Your task to perform on an android device: Go to settings Image 0: 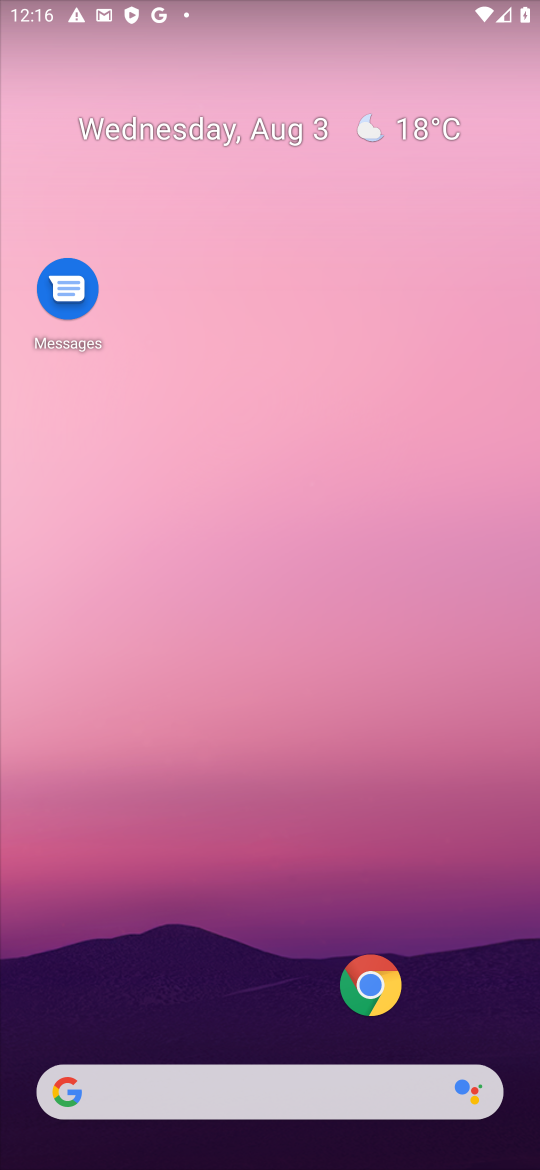
Step 0: drag from (271, 1046) to (253, 312)
Your task to perform on an android device: Go to settings Image 1: 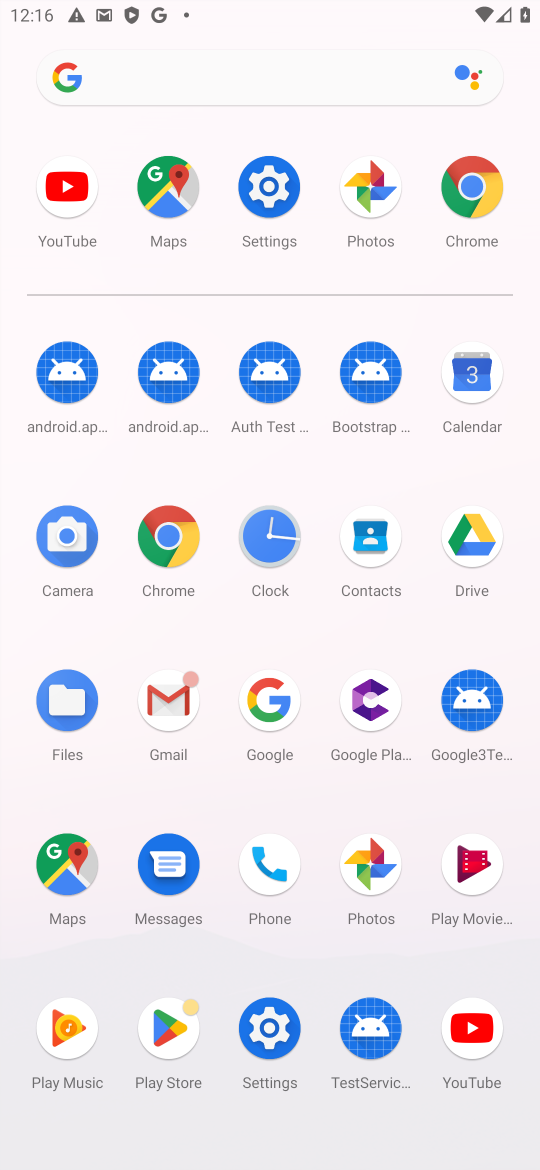
Step 1: click (257, 175)
Your task to perform on an android device: Go to settings Image 2: 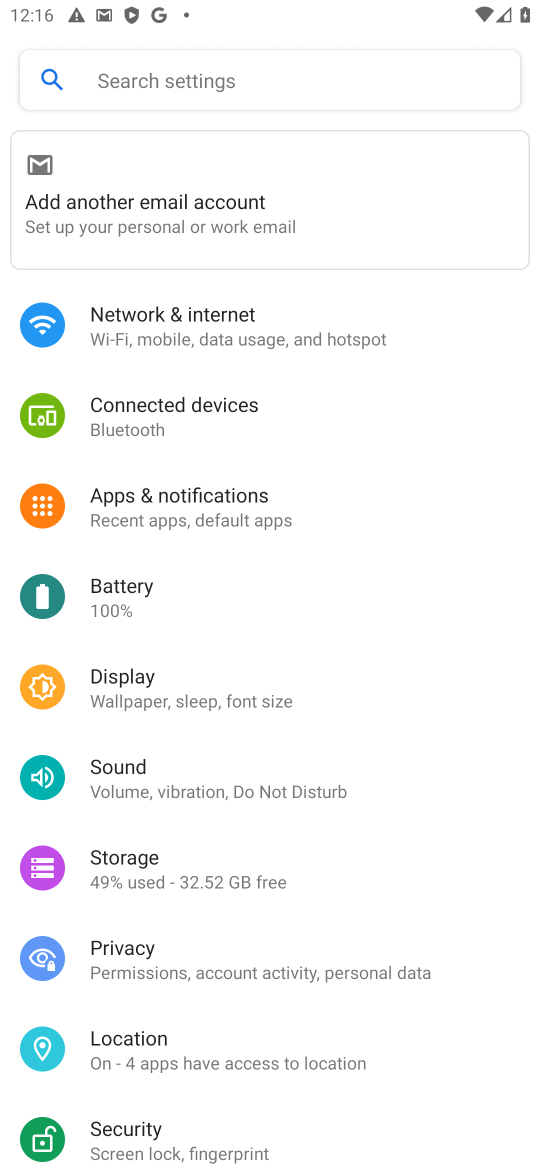
Step 2: task complete